Your task to perform on an android device: Open the web browser Image 0: 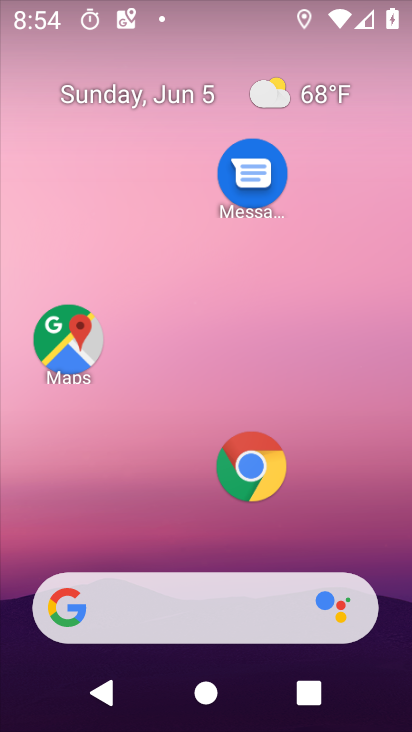
Step 0: drag from (225, 529) to (243, 88)
Your task to perform on an android device: Open the web browser Image 1: 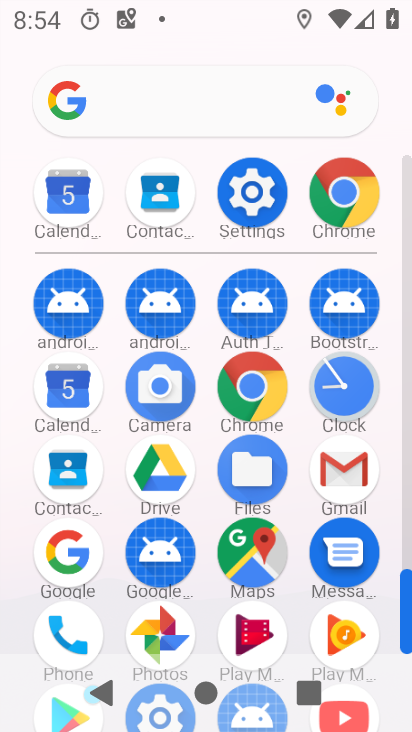
Step 1: click (334, 199)
Your task to perform on an android device: Open the web browser Image 2: 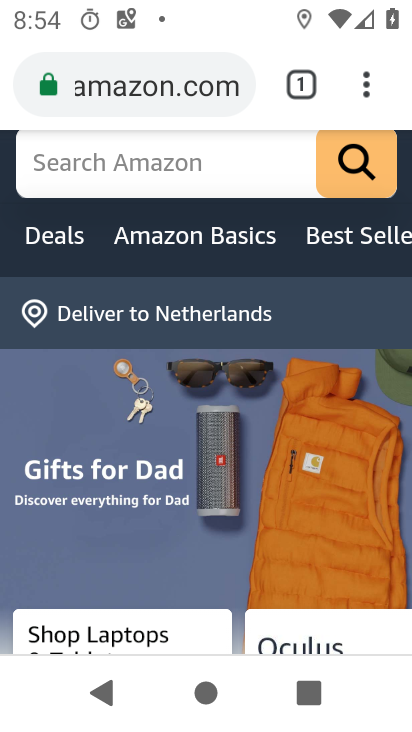
Step 2: click (111, 155)
Your task to perform on an android device: Open the web browser Image 3: 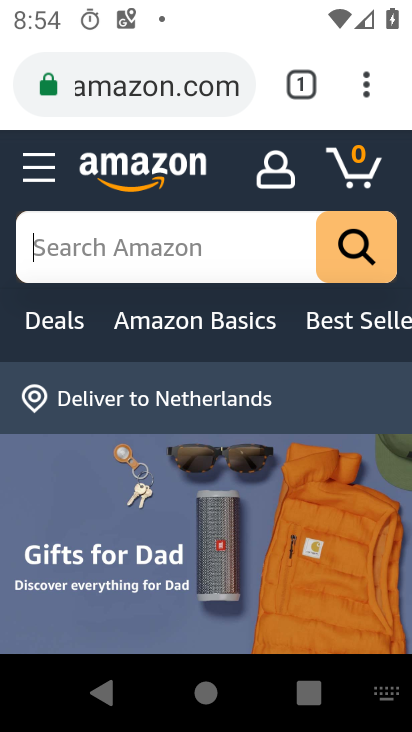
Step 3: type "web browser"
Your task to perform on an android device: Open the web browser Image 4: 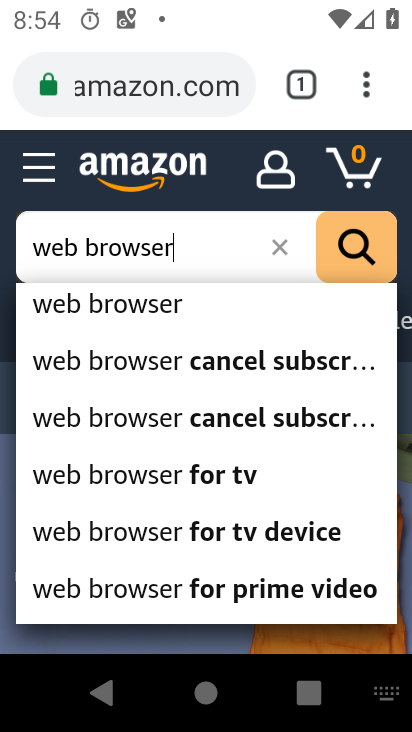
Step 4: click (274, 247)
Your task to perform on an android device: Open the web browser Image 5: 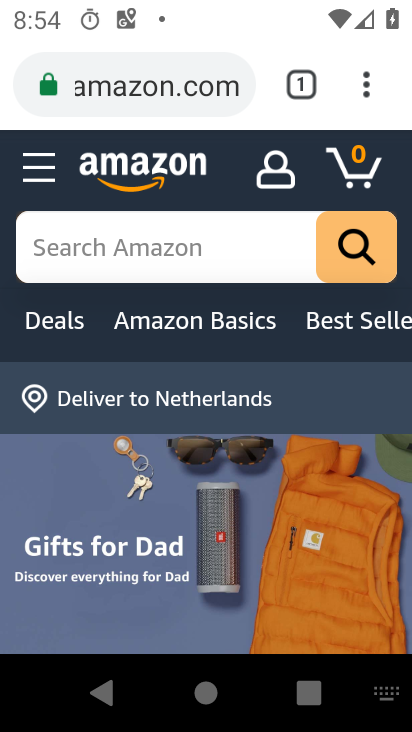
Step 5: task complete